Your task to perform on an android device: Search for Mexican restaurants on Maps Image 0: 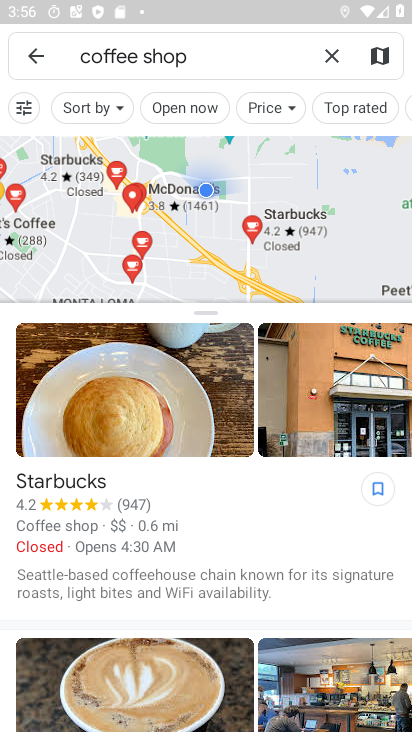
Step 0: click (336, 56)
Your task to perform on an android device: Search for Mexican restaurants on Maps Image 1: 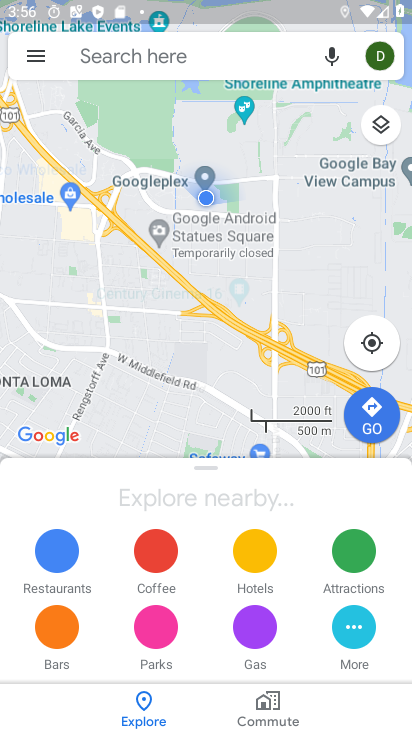
Step 1: click (209, 57)
Your task to perform on an android device: Search for Mexican restaurants on Maps Image 2: 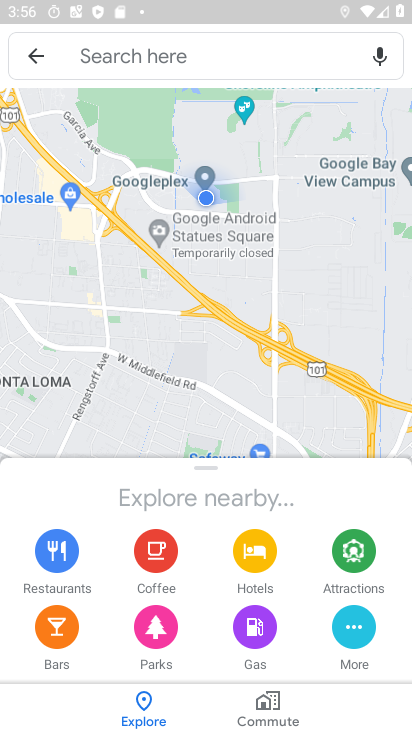
Step 2: click (179, 47)
Your task to perform on an android device: Search for Mexican restaurants on Maps Image 3: 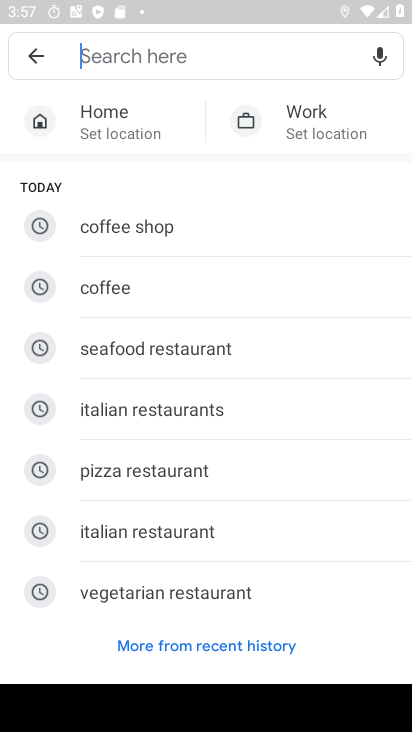
Step 3: click (85, 61)
Your task to perform on an android device: Search for Mexican restaurants on Maps Image 4: 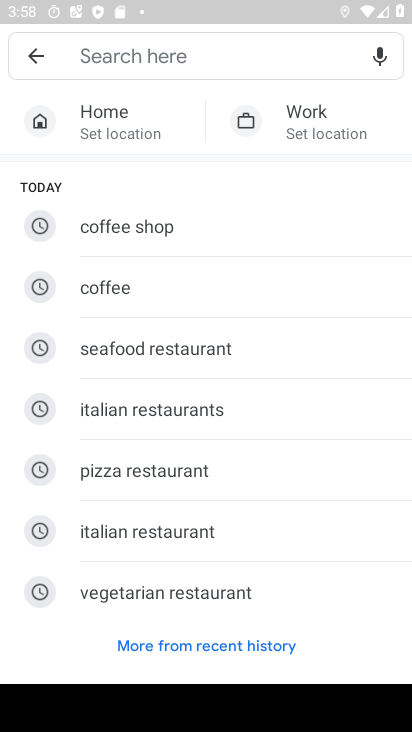
Step 4: type "MEXICAN RESTAURANTS"
Your task to perform on an android device: Search for Mexican restaurants on Maps Image 5: 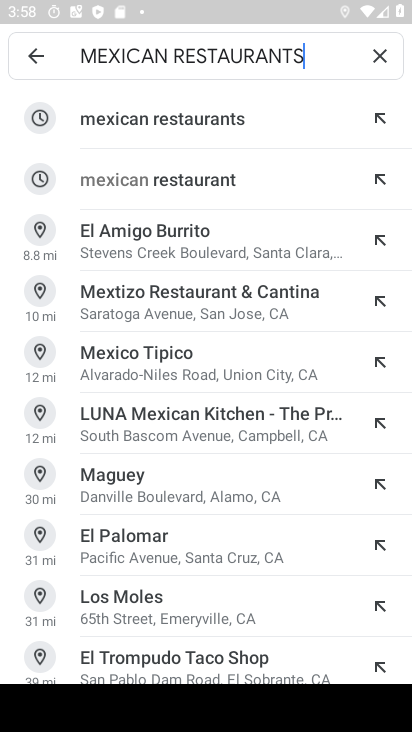
Step 5: click (152, 116)
Your task to perform on an android device: Search for Mexican restaurants on Maps Image 6: 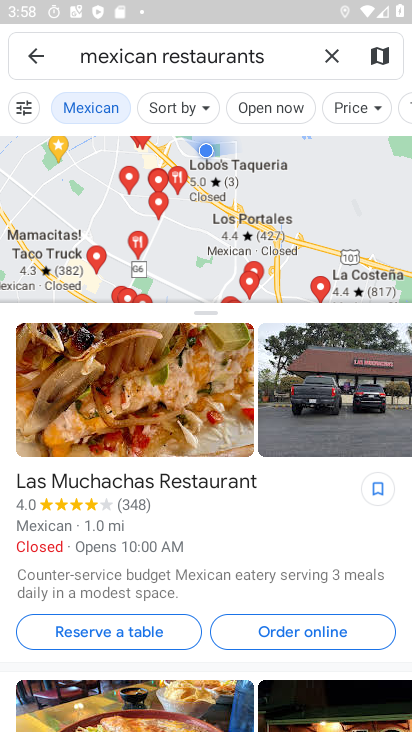
Step 6: task complete